Your task to perform on an android device: See recent photos Image 0: 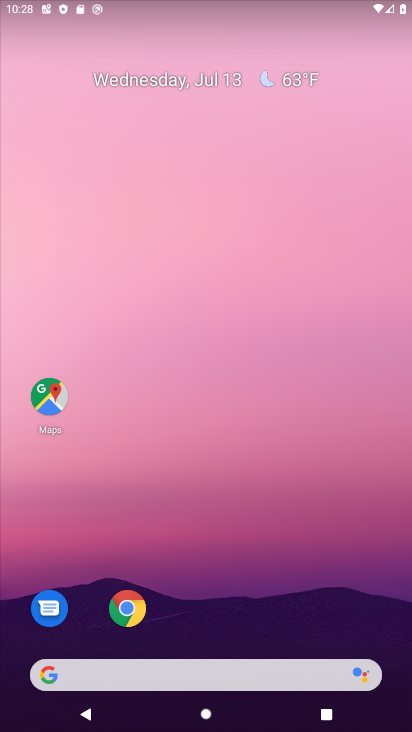
Step 0: drag from (227, 625) to (366, 8)
Your task to perform on an android device: See recent photos Image 1: 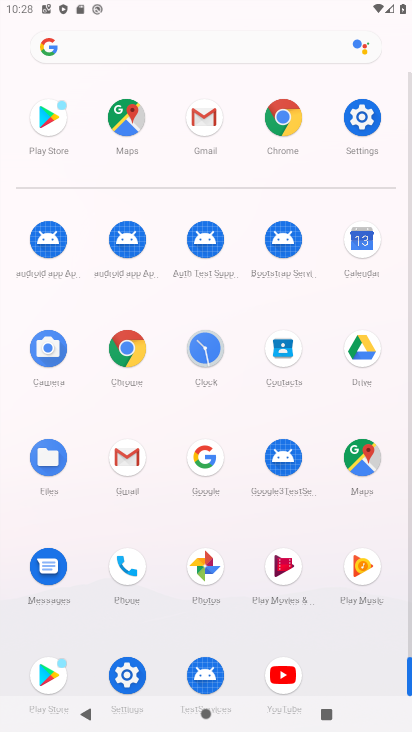
Step 1: click (209, 563)
Your task to perform on an android device: See recent photos Image 2: 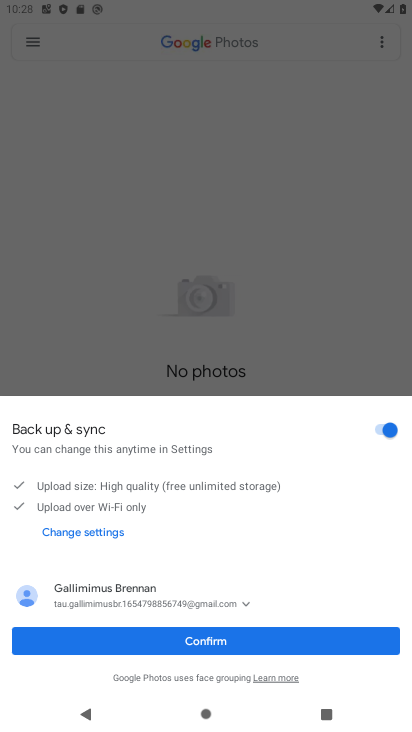
Step 2: click (58, 678)
Your task to perform on an android device: See recent photos Image 3: 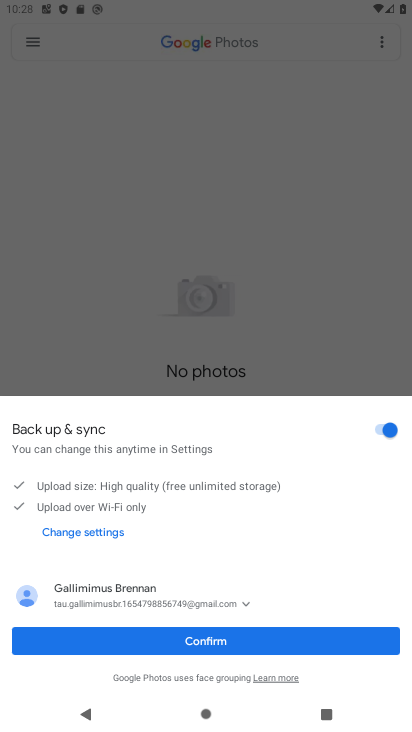
Step 3: click (58, 678)
Your task to perform on an android device: See recent photos Image 4: 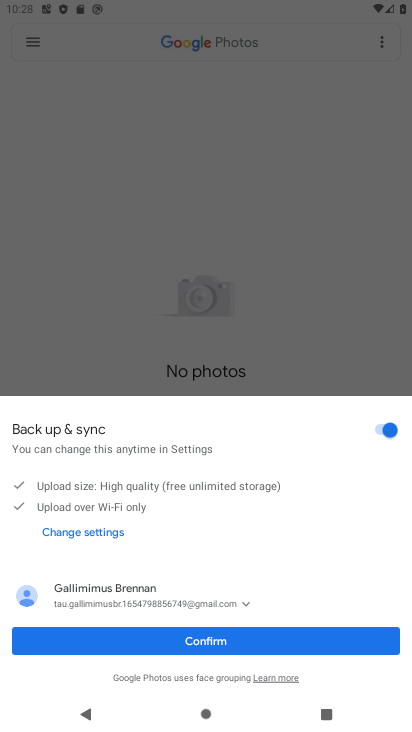
Step 4: click (210, 638)
Your task to perform on an android device: See recent photos Image 5: 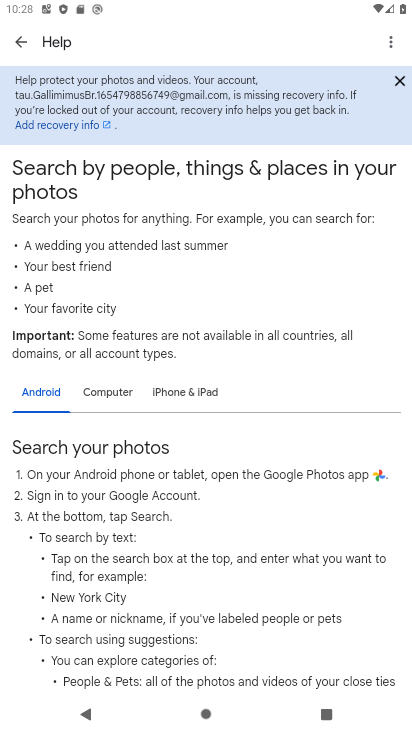
Step 5: click (17, 42)
Your task to perform on an android device: See recent photos Image 6: 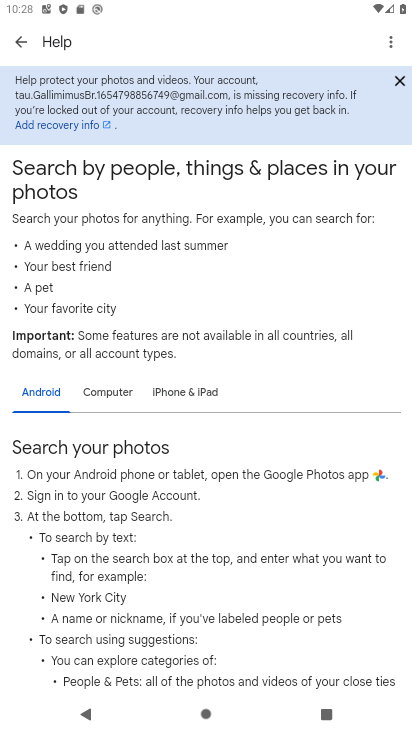
Step 6: press back button
Your task to perform on an android device: See recent photos Image 7: 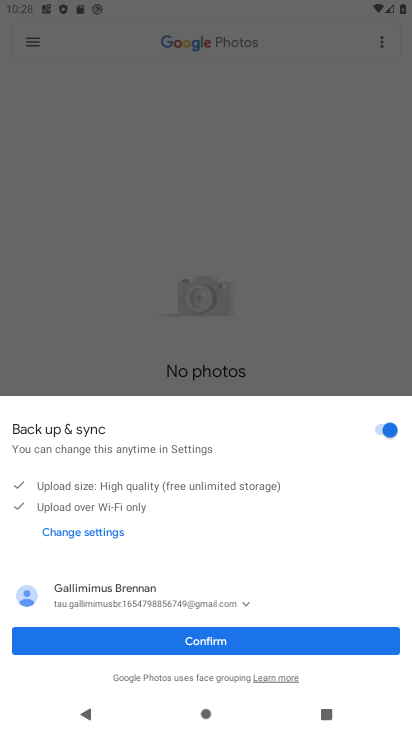
Step 7: click (141, 645)
Your task to perform on an android device: See recent photos Image 8: 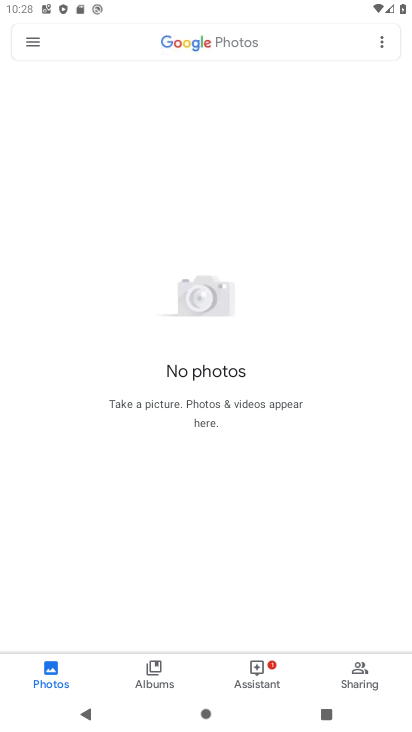
Step 8: click (52, 672)
Your task to perform on an android device: See recent photos Image 9: 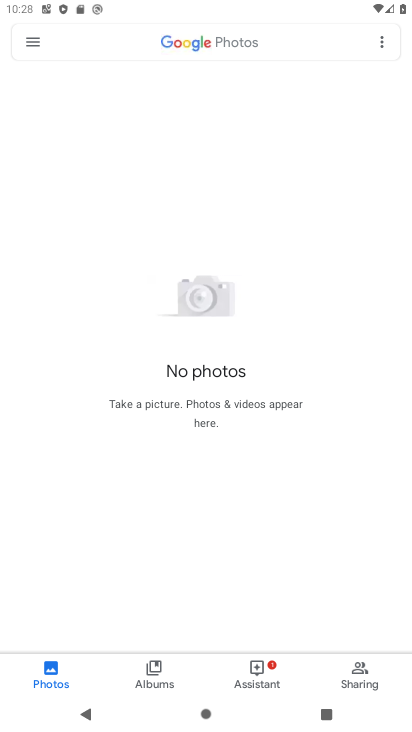
Step 9: click (52, 672)
Your task to perform on an android device: See recent photos Image 10: 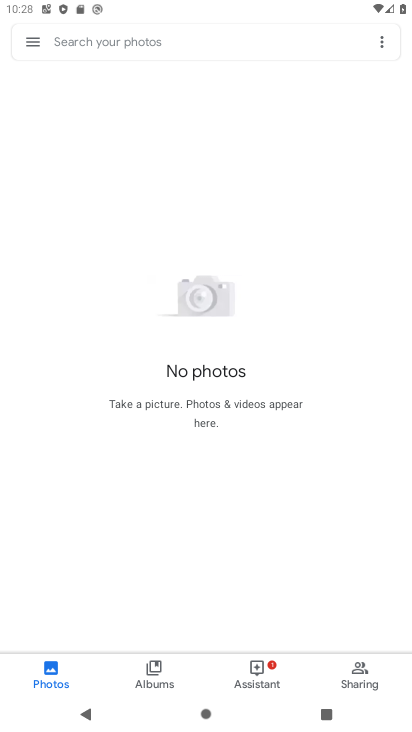
Step 10: task complete